Your task to perform on an android device: empty trash in google photos Image 0: 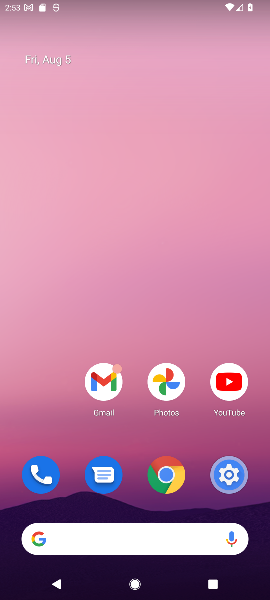
Step 0: click (161, 376)
Your task to perform on an android device: empty trash in google photos Image 1: 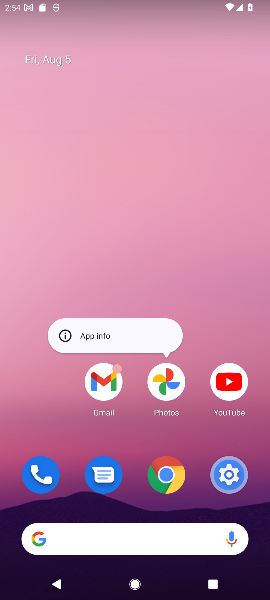
Step 1: click (134, 381)
Your task to perform on an android device: empty trash in google photos Image 2: 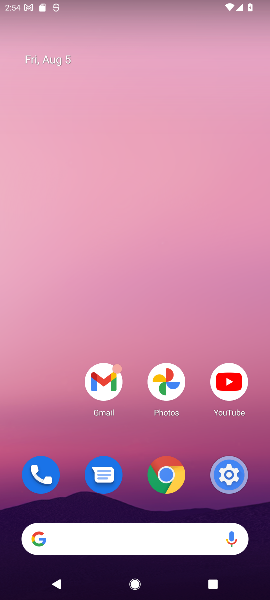
Step 2: click (158, 382)
Your task to perform on an android device: empty trash in google photos Image 3: 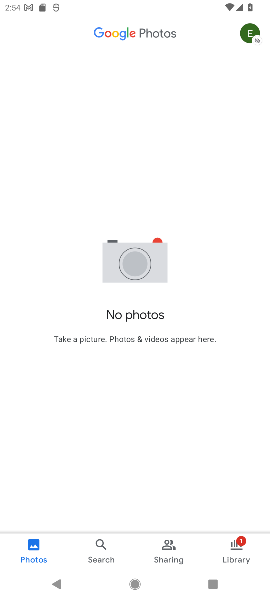
Step 3: task complete